Your task to perform on an android device: change text size in settings app Image 0: 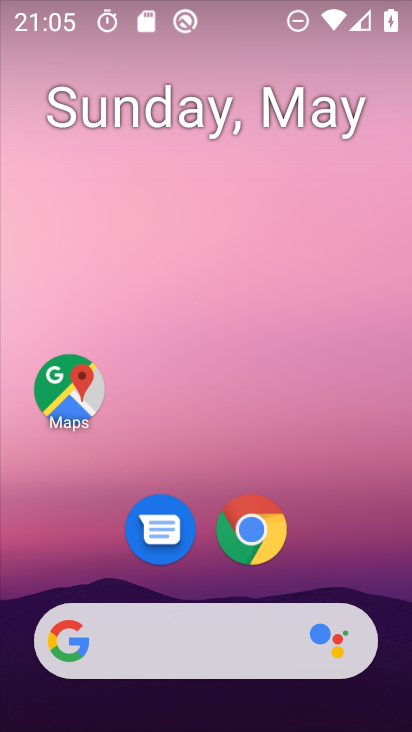
Step 0: press home button
Your task to perform on an android device: change text size in settings app Image 1: 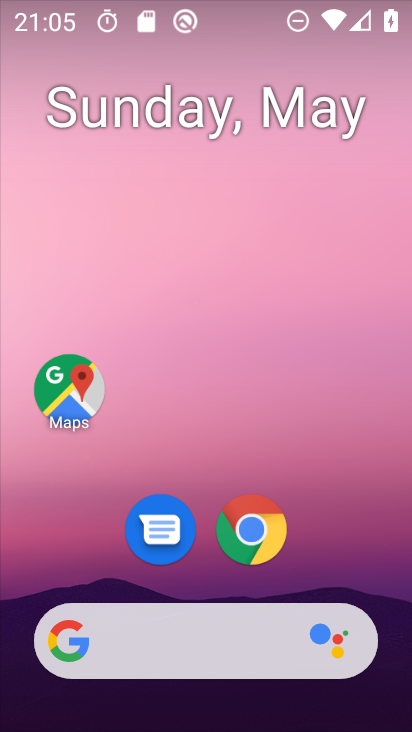
Step 1: drag from (335, 331) to (266, 2)
Your task to perform on an android device: change text size in settings app Image 2: 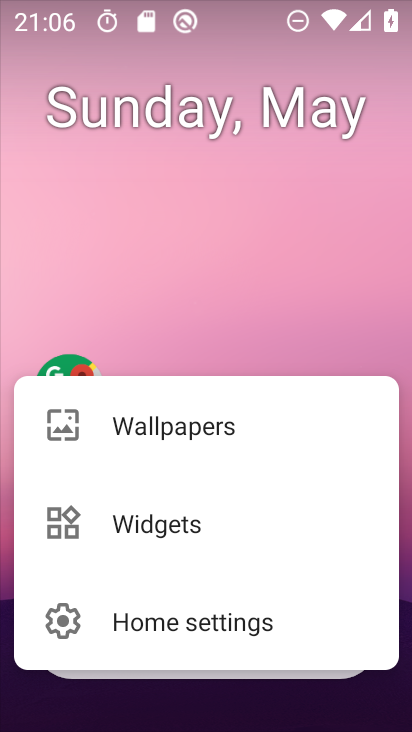
Step 2: click (304, 298)
Your task to perform on an android device: change text size in settings app Image 3: 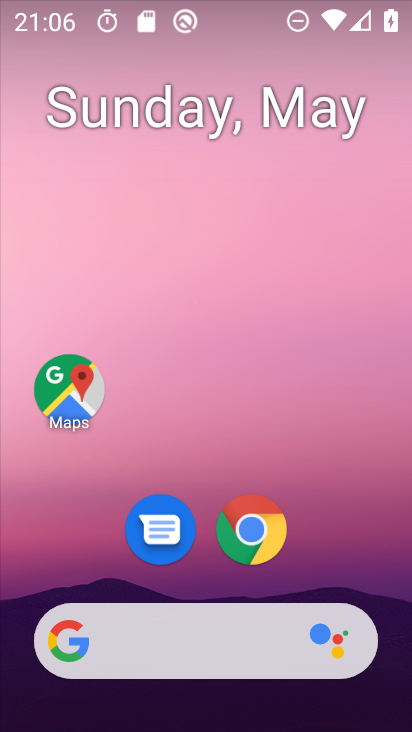
Step 3: drag from (200, 681) to (257, 54)
Your task to perform on an android device: change text size in settings app Image 4: 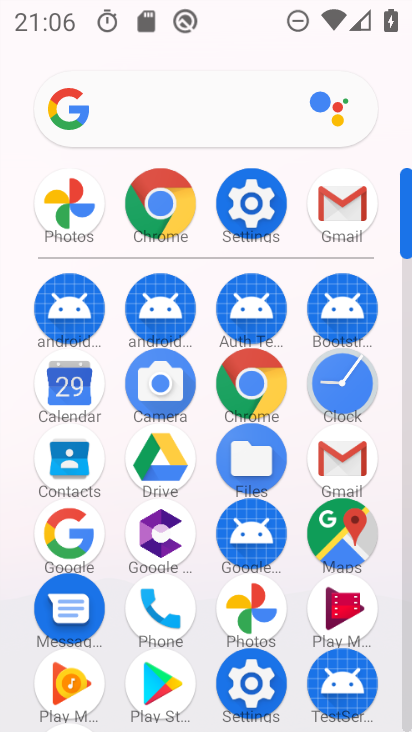
Step 4: click (247, 230)
Your task to perform on an android device: change text size in settings app Image 5: 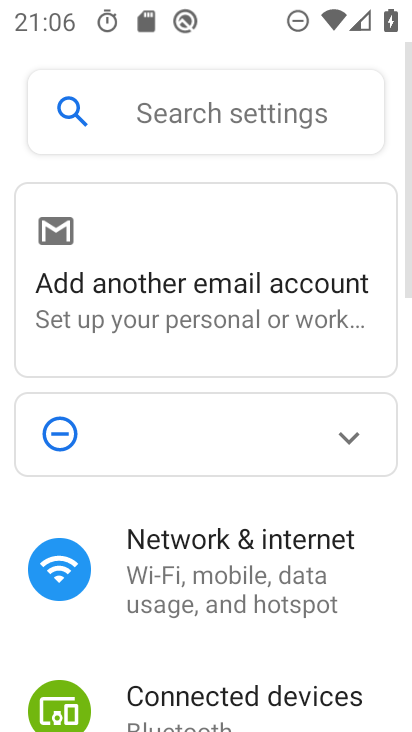
Step 5: click (157, 115)
Your task to perform on an android device: change text size in settings app Image 6: 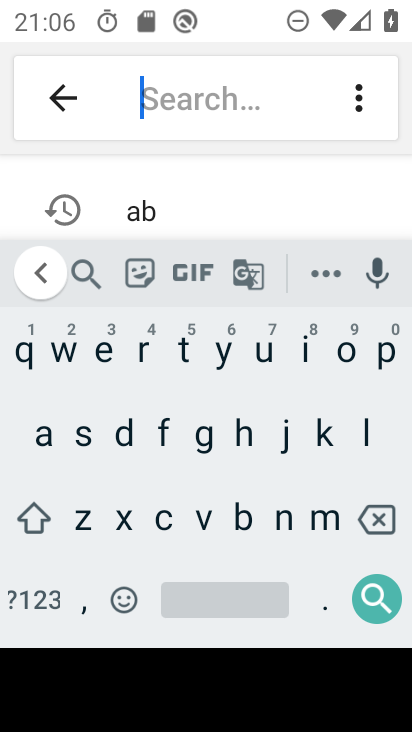
Step 6: press back button
Your task to perform on an android device: change text size in settings app Image 7: 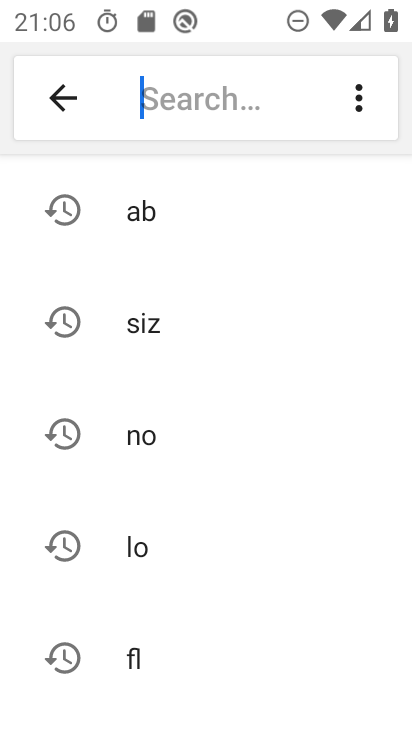
Step 7: click (168, 331)
Your task to perform on an android device: change text size in settings app Image 8: 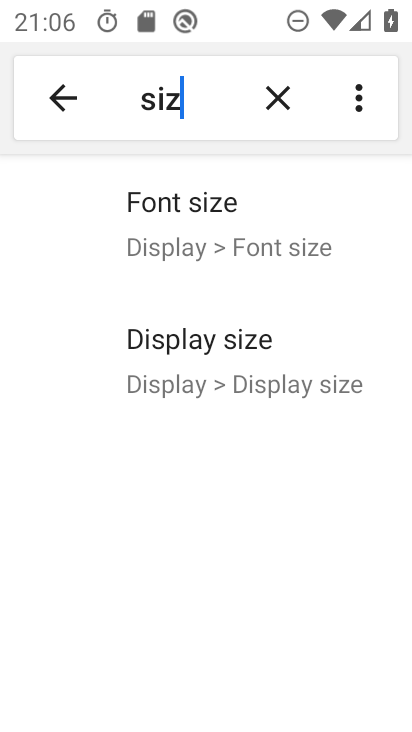
Step 8: click (222, 211)
Your task to perform on an android device: change text size in settings app Image 9: 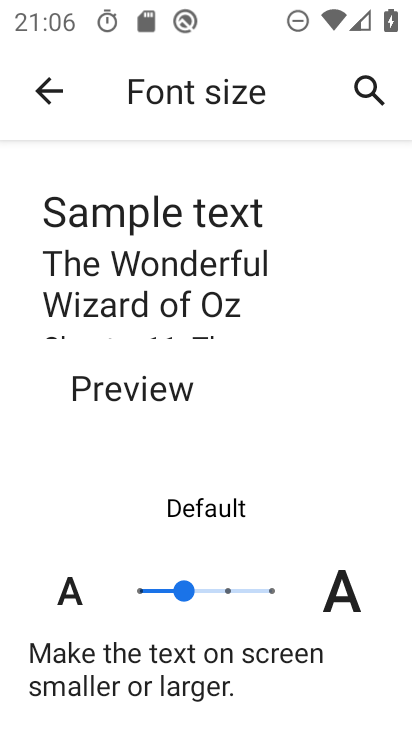
Step 9: click (131, 587)
Your task to perform on an android device: change text size in settings app Image 10: 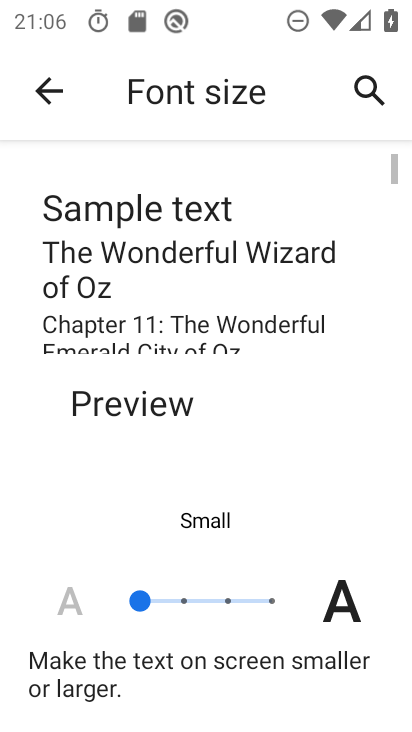
Step 10: task complete